Your task to perform on an android device: manage bookmarks in the chrome app Image 0: 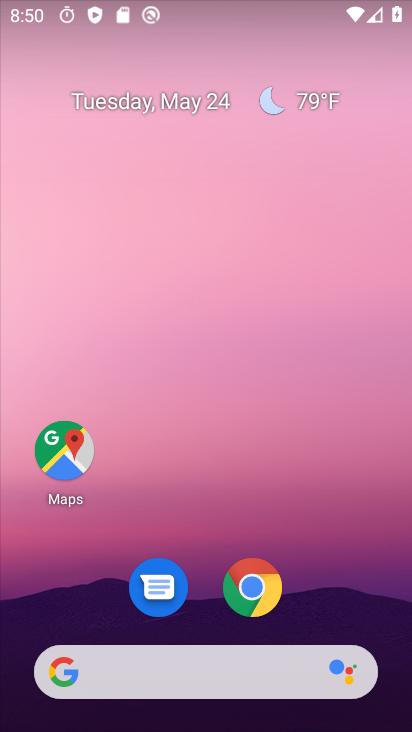
Step 0: click (255, 588)
Your task to perform on an android device: manage bookmarks in the chrome app Image 1: 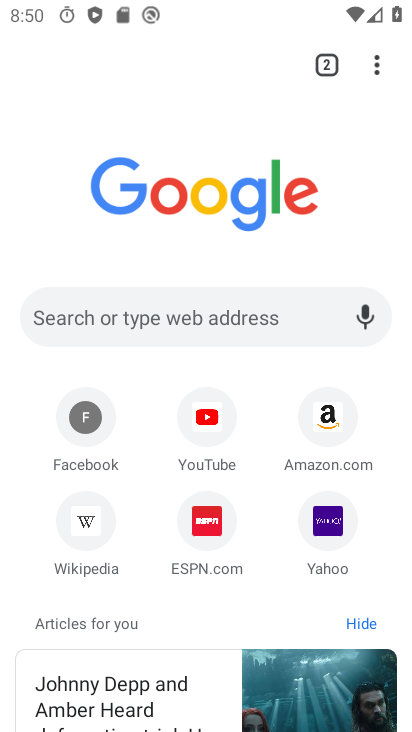
Step 1: click (377, 64)
Your task to perform on an android device: manage bookmarks in the chrome app Image 2: 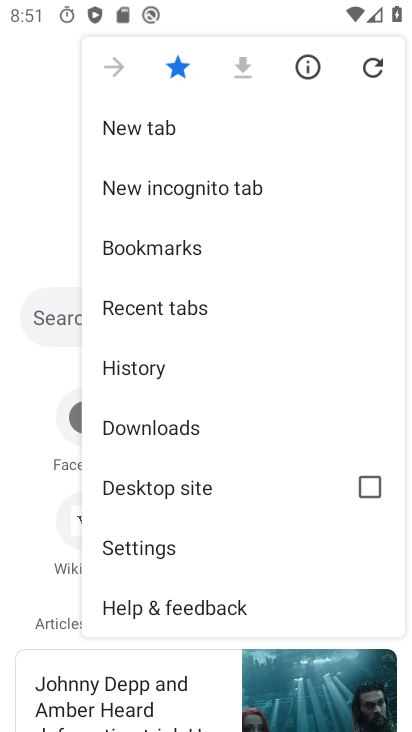
Step 2: click (165, 256)
Your task to perform on an android device: manage bookmarks in the chrome app Image 3: 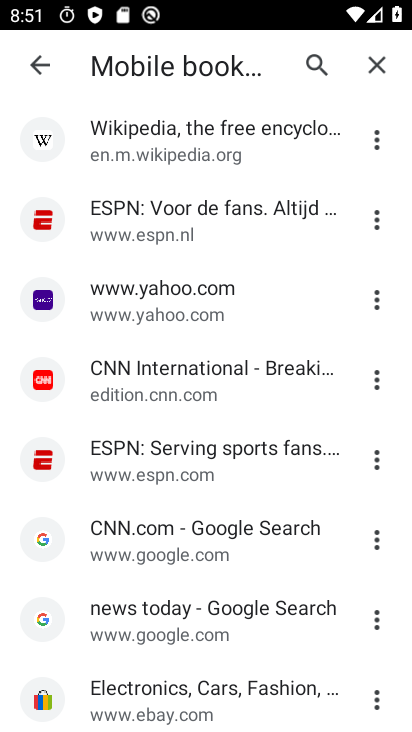
Step 3: click (380, 132)
Your task to perform on an android device: manage bookmarks in the chrome app Image 4: 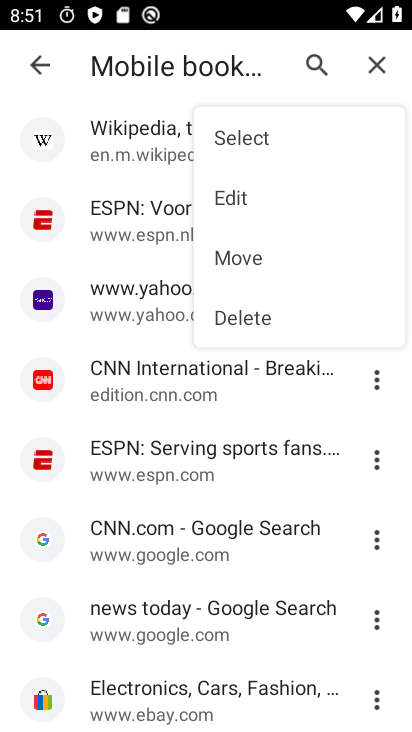
Step 4: click (266, 191)
Your task to perform on an android device: manage bookmarks in the chrome app Image 5: 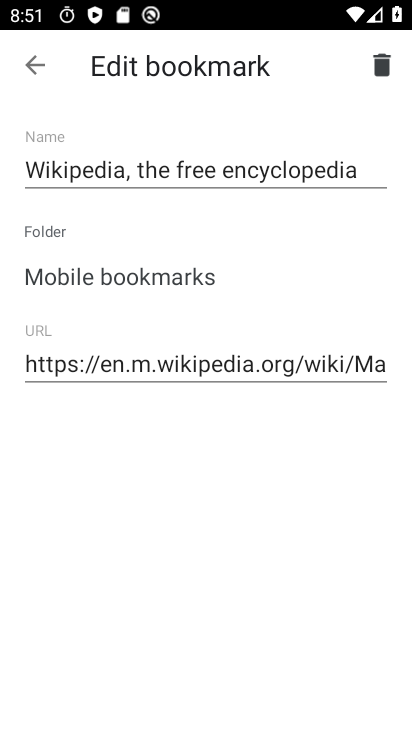
Step 5: click (378, 70)
Your task to perform on an android device: manage bookmarks in the chrome app Image 6: 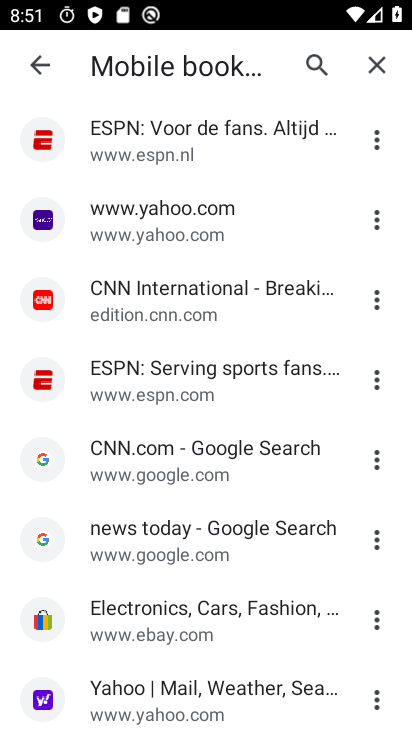
Step 6: task complete